Your task to perform on an android device: turn on airplane mode Image 0: 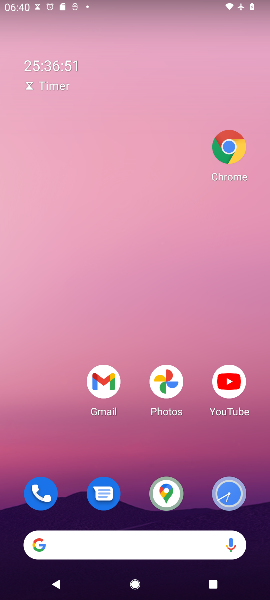
Step 0: press home button
Your task to perform on an android device: turn on airplane mode Image 1: 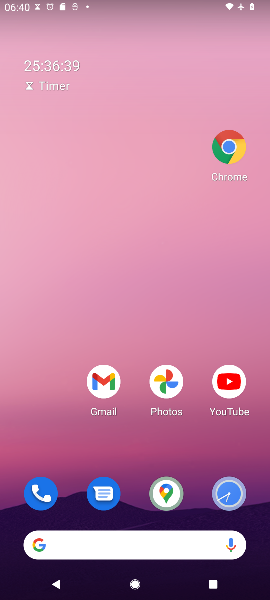
Step 1: drag from (132, 513) to (220, 42)
Your task to perform on an android device: turn on airplane mode Image 2: 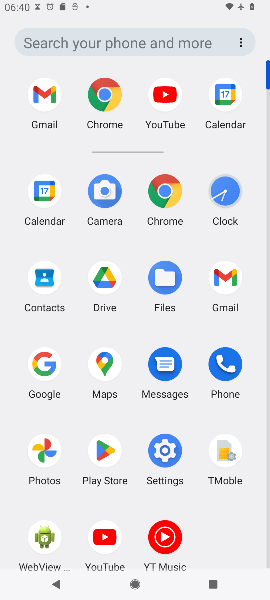
Step 2: click (175, 453)
Your task to perform on an android device: turn on airplane mode Image 3: 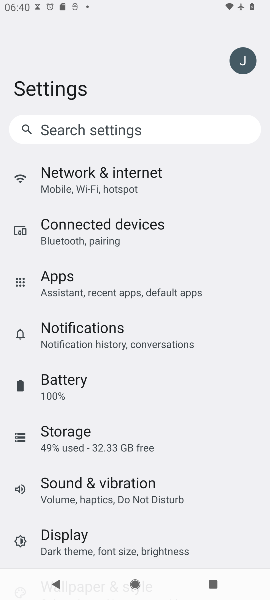
Step 3: click (112, 173)
Your task to perform on an android device: turn on airplane mode Image 4: 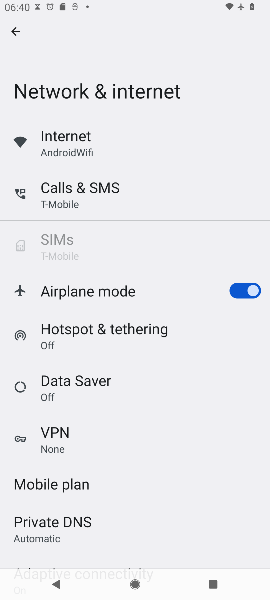
Step 4: task complete